Your task to perform on an android device: Open settings on Google Maps Image 0: 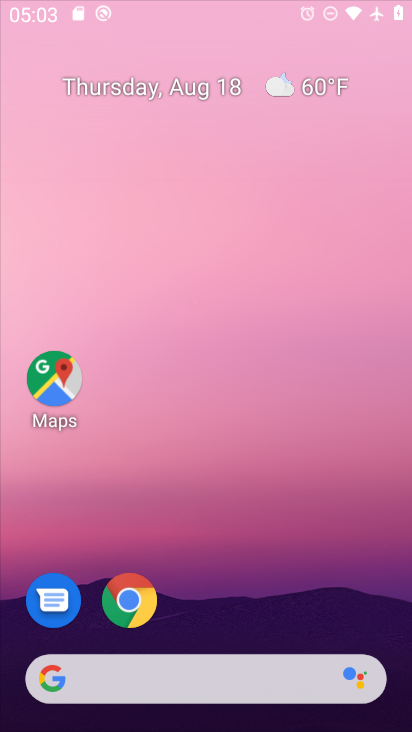
Step 0: press home button
Your task to perform on an android device: Open settings on Google Maps Image 1: 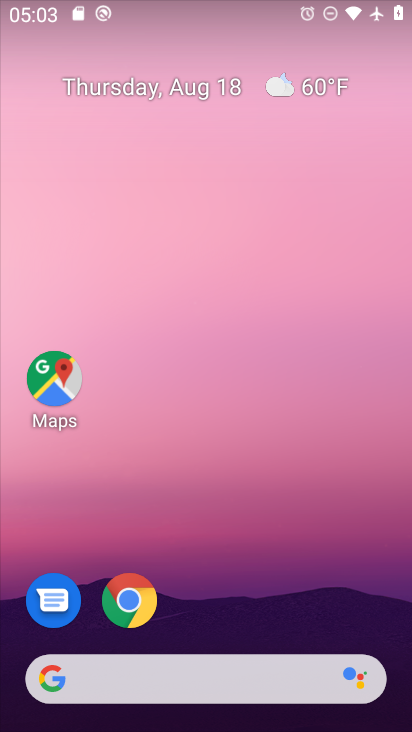
Step 1: click (46, 384)
Your task to perform on an android device: Open settings on Google Maps Image 2: 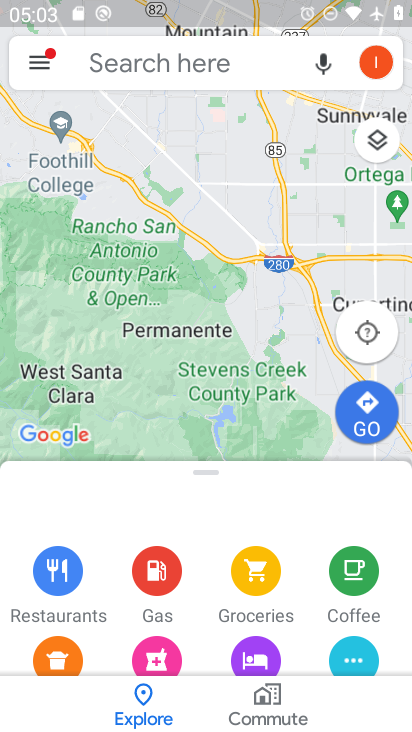
Step 2: click (39, 50)
Your task to perform on an android device: Open settings on Google Maps Image 3: 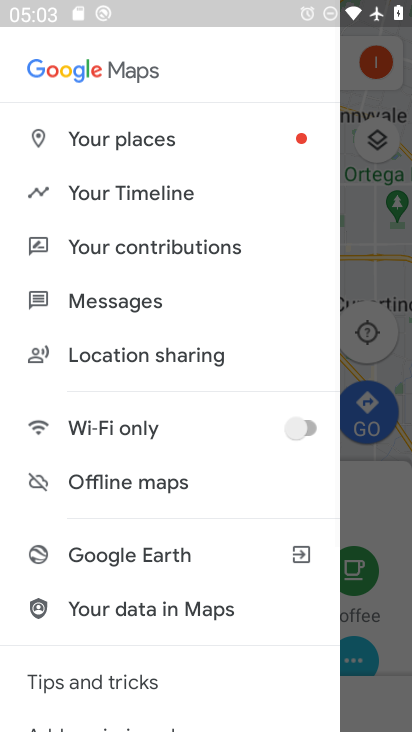
Step 3: drag from (255, 648) to (230, 190)
Your task to perform on an android device: Open settings on Google Maps Image 4: 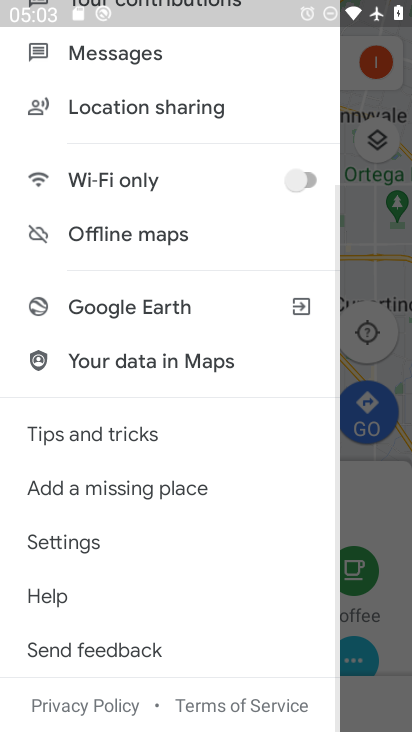
Step 4: click (48, 549)
Your task to perform on an android device: Open settings on Google Maps Image 5: 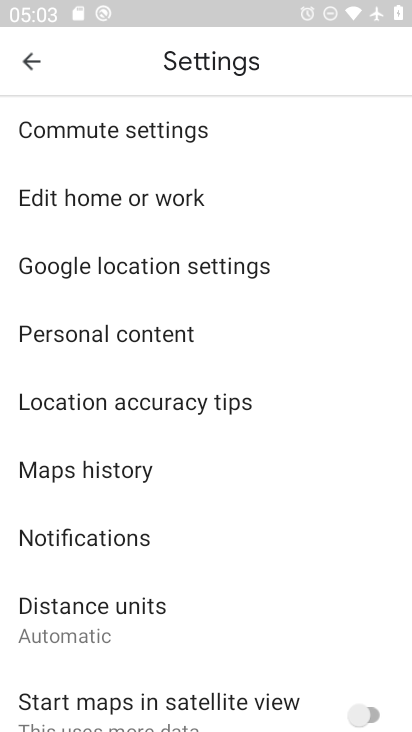
Step 5: task complete